Your task to perform on an android device: turn on wifi Image 0: 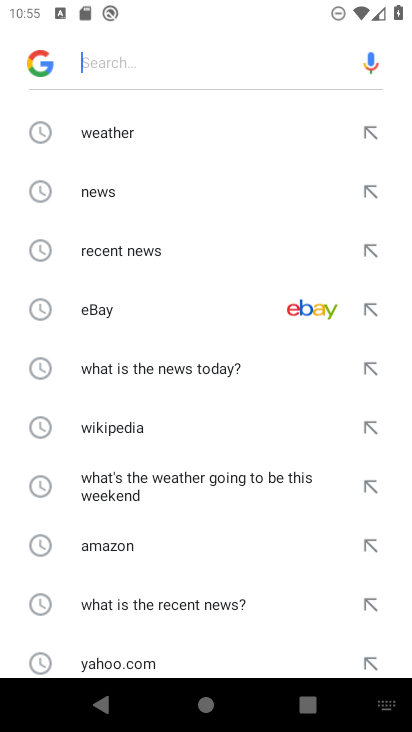
Step 0: drag from (153, 18) to (76, 498)
Your task to perform on an android device: turn on wifi Image 1: 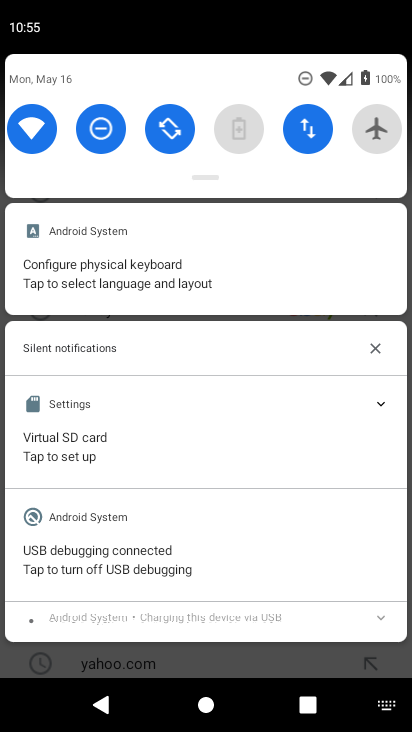
Step 1: task complete